Your task to perform on an android device: Open Youtube and go to "Your channel" Image 0: 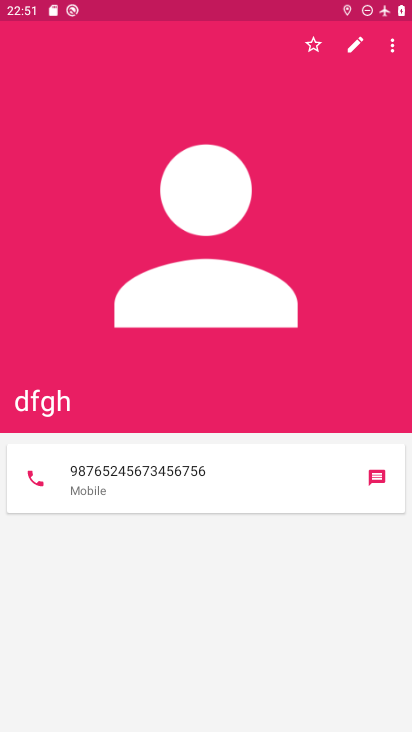
Step 0: press home button
Your task to perform on an android device: Open Youtube and go to "Your channel" Image 1: 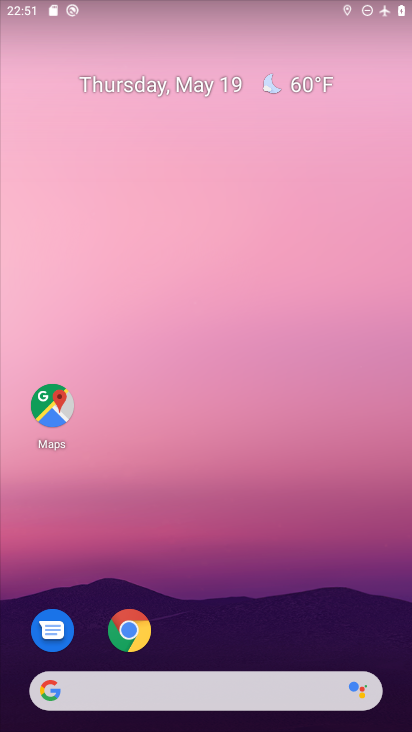
Step 1: drag from (208, 506) to (186, 244)
Your task to perform on an android device: Open Youtube and go to "Your channel" Image 2: 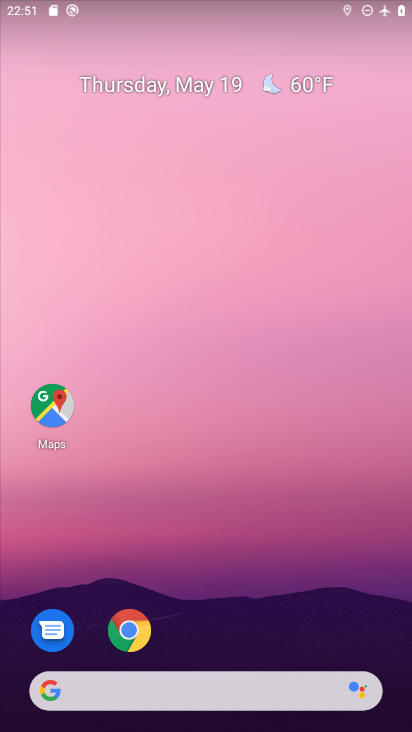
Step 2: drag from (272, 568) to (253, 146)
Your task to perform on an android device: Open Youtube and go to "Your channel" Image 3: 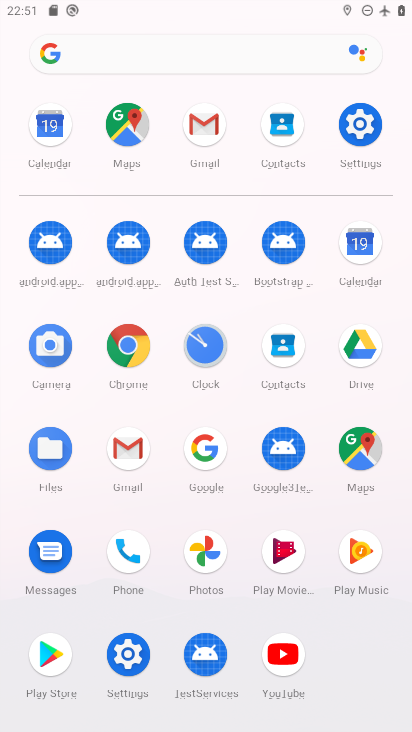
Step 3: click (282, 663)
Your task to perform on an android device: Open Youtube and go to "Your channel" Image 4: 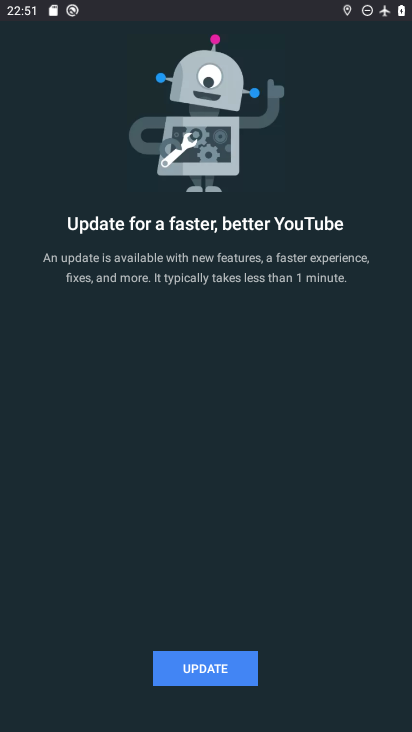
Step 4: click (202, 667)
Your task to perform on an android device: Open Youtube and go to "Your channel" Image 5: 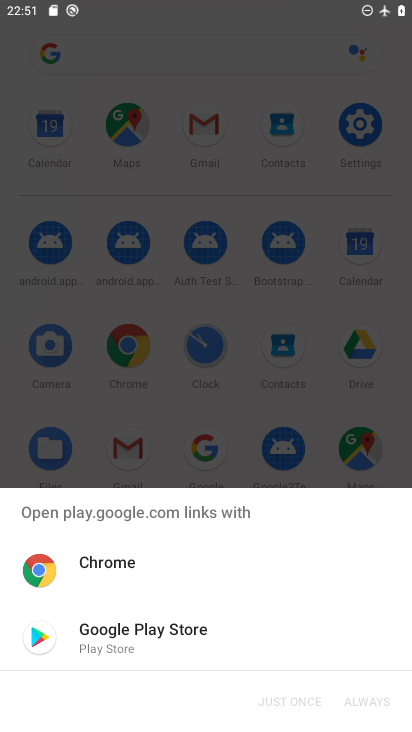
Step 5: click (140, 630)
Your task to perform on an android device: Open Youtube and go to "Your channel" Image 6: 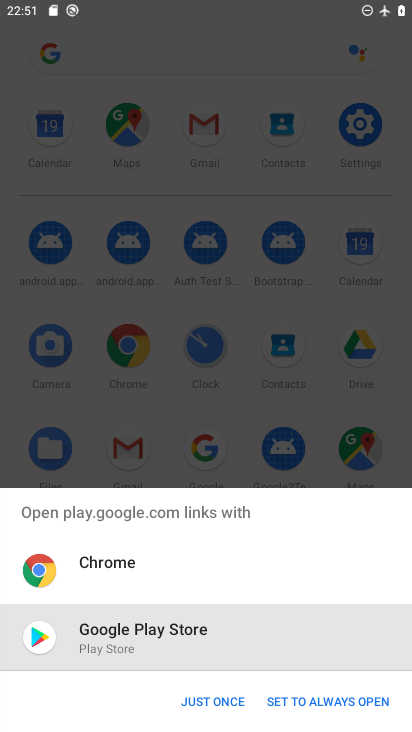
Step 6: click (206, 693)
Your task to perform on an android device: Open Youtube and go to "Your channel" Image 7: 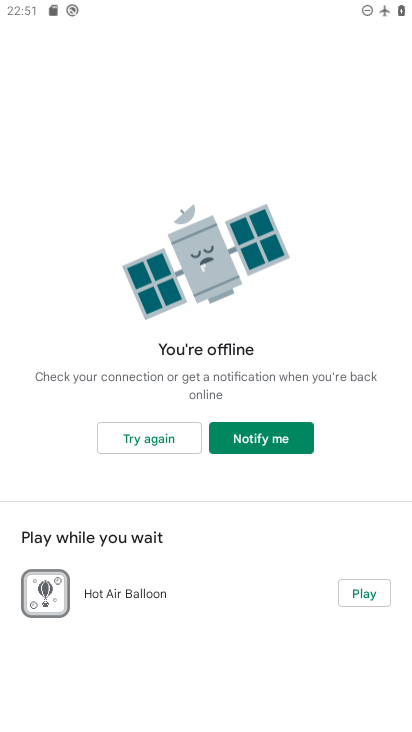
Step 7: click (233, 440)
Your task to perform on an android device: Open Youtube and go to "Your channel" Image 8: 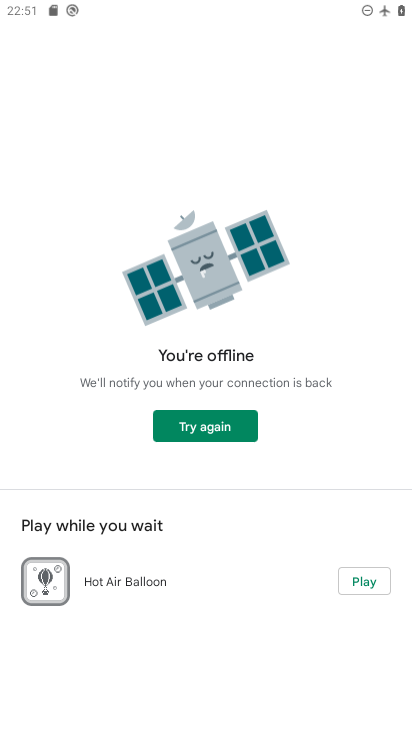
Step 8: click (210, 428)
Your task to perform on an android device: Open Youtube and go to "Your channel" Image 9: 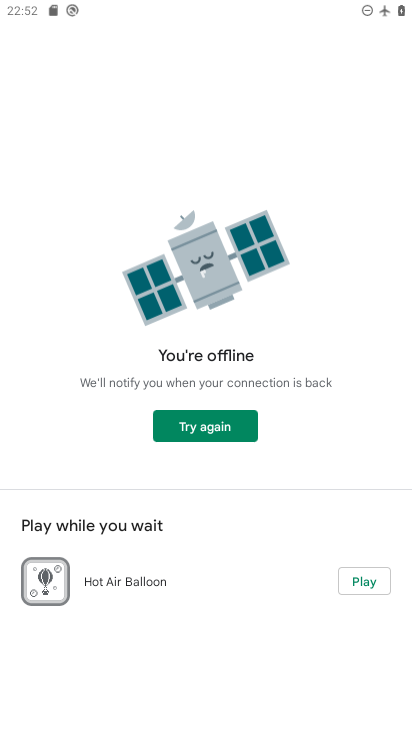
Step 9: task complete